Your task to perform on an android device: turn on javascript in the chrome app Image 0: 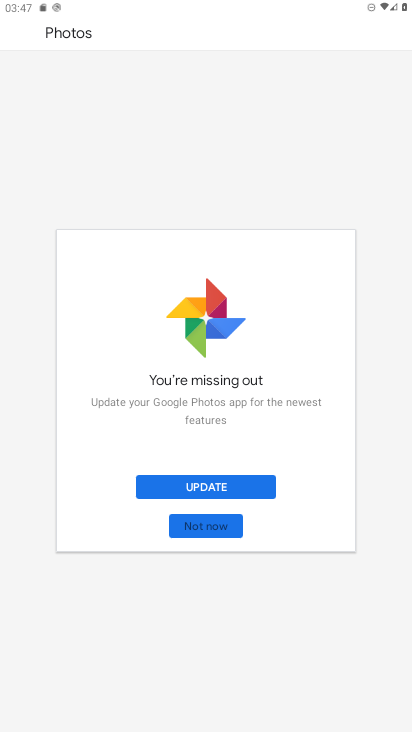
Step 0: press home button
Your task to perform on an android device: turn on javascript in the chrome app Image 1: 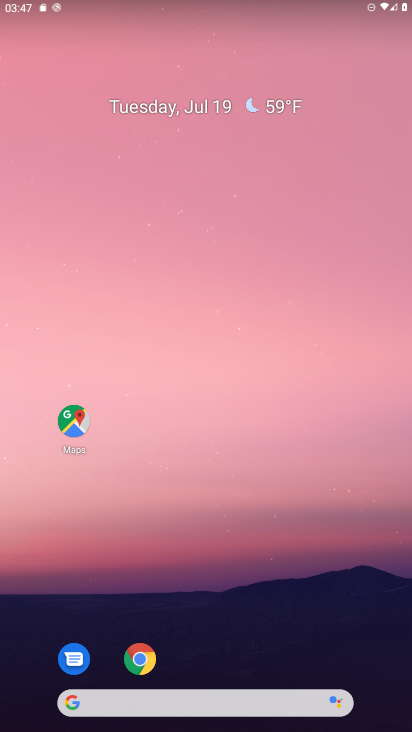
Step 1: click (140, 660)
Your task to perform on an android device: turn on javascript in the chrome app Image 2: 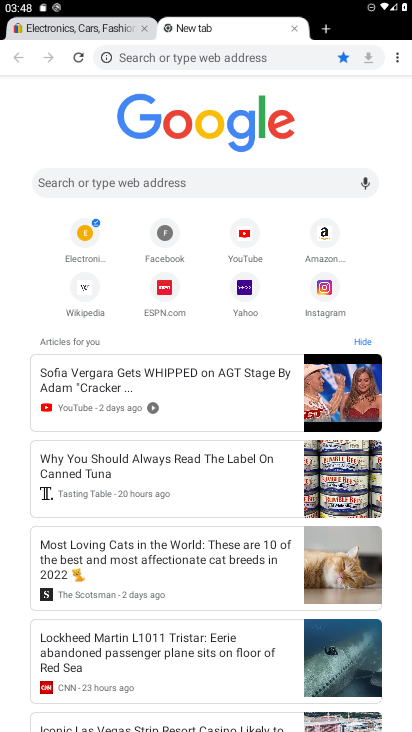
Step 2: click (397, 56)
Your task to perform on an android device: turn on javascript in the chrome app Image 3: 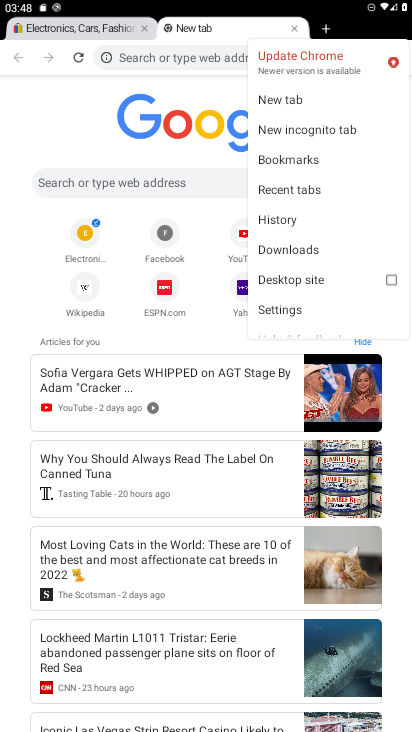
Step 3: click (291, 312)
Your task to perform on an android device: turn on javascript in the chrome app Image 4: 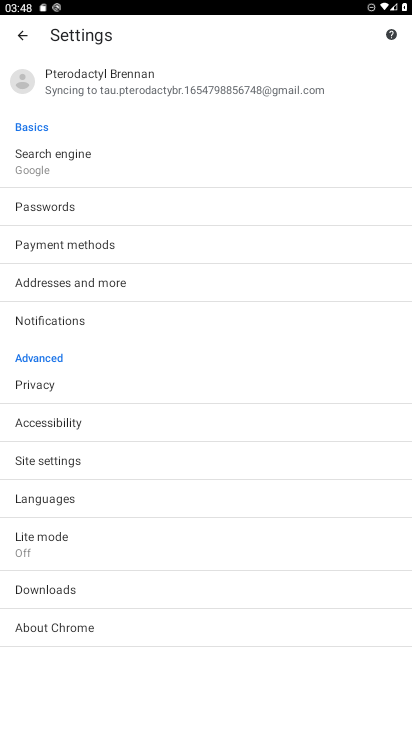
Step 4: click (64, 464)
Your task to perform on an android device: turn on javascript in the chrome app Image 5: 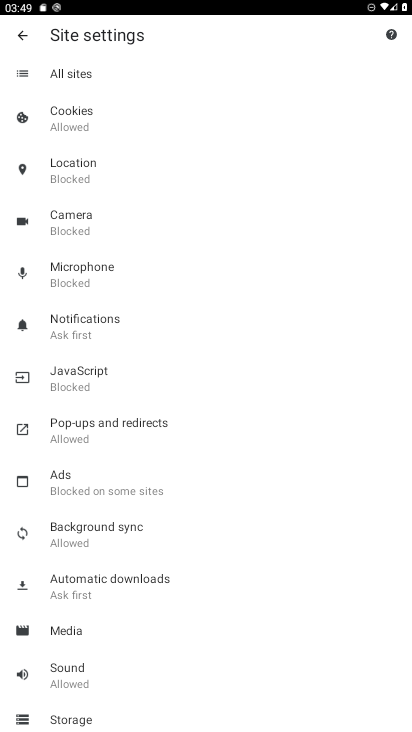
Step 5: click (74, 372)
Your task to perform on an android device: turn on javascript in the chrome app Image 6: 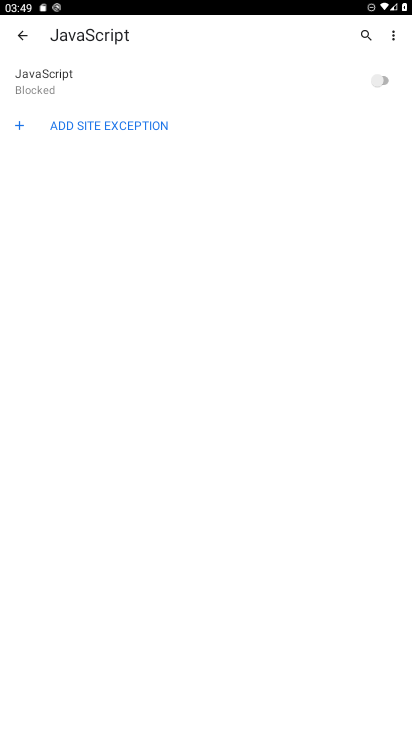
Step 6: click (380, 78)
Your task to perform on an android device: turn on javascript in the chrome app Image 7: 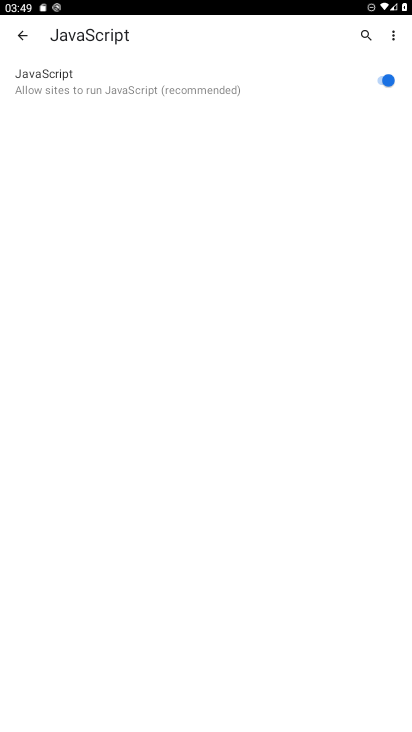
Step 7: task complete